Your task to perform on an android device: Add "usb-c" to the cart on amazon.com Image 0: 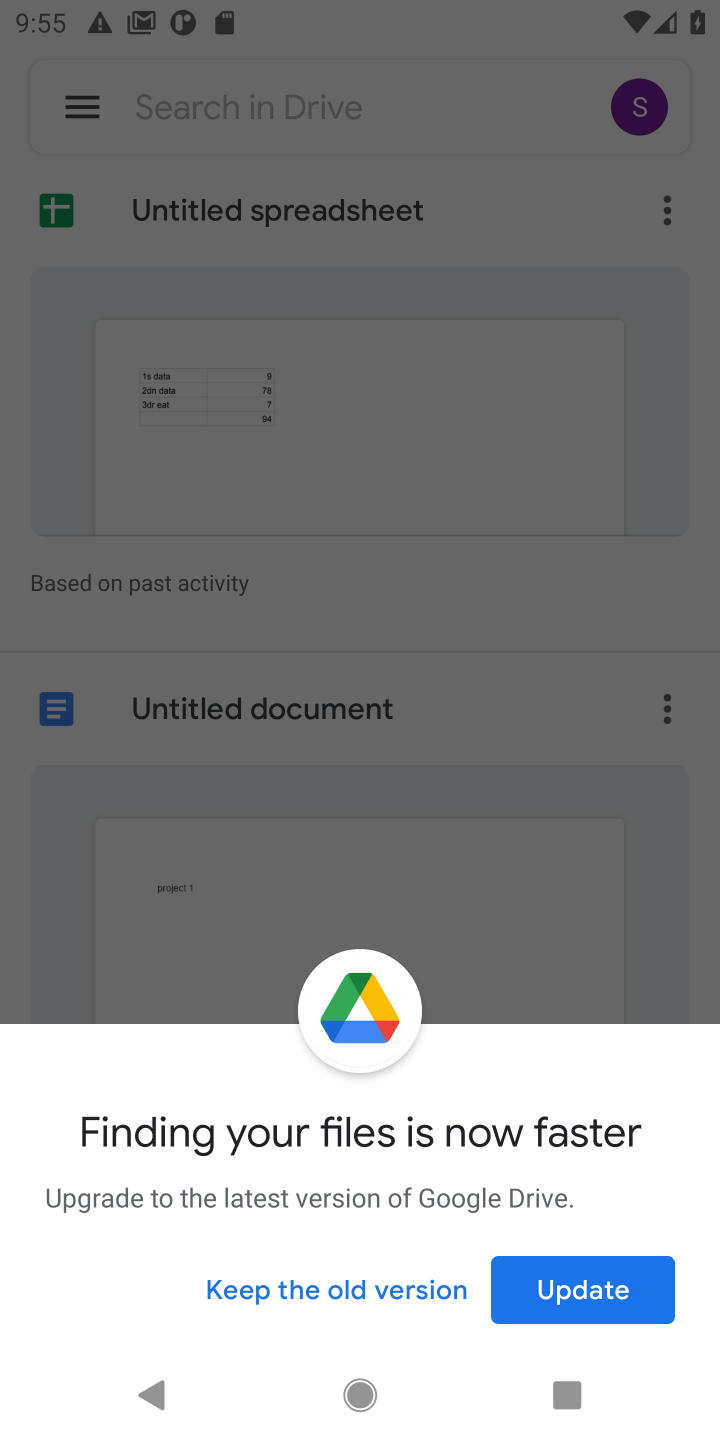
Step 0: press home button
Your task to perform on an android device: Add "usb-c" to the cart on amazon.com Image 1: 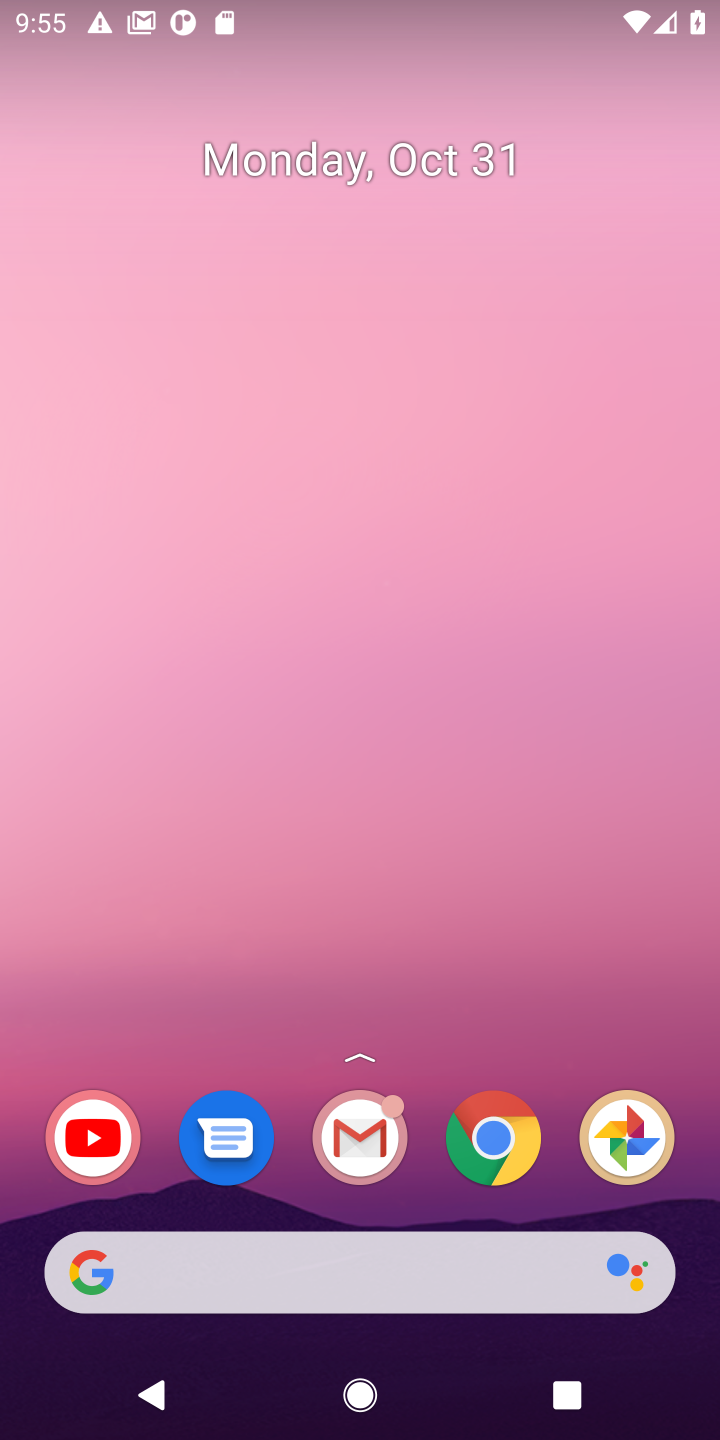
Step 1: drag from (450, 1330) to (406, 67)
Your task to perform on an android device: Add "usb-c" to the cart on amazon.com Image 2: 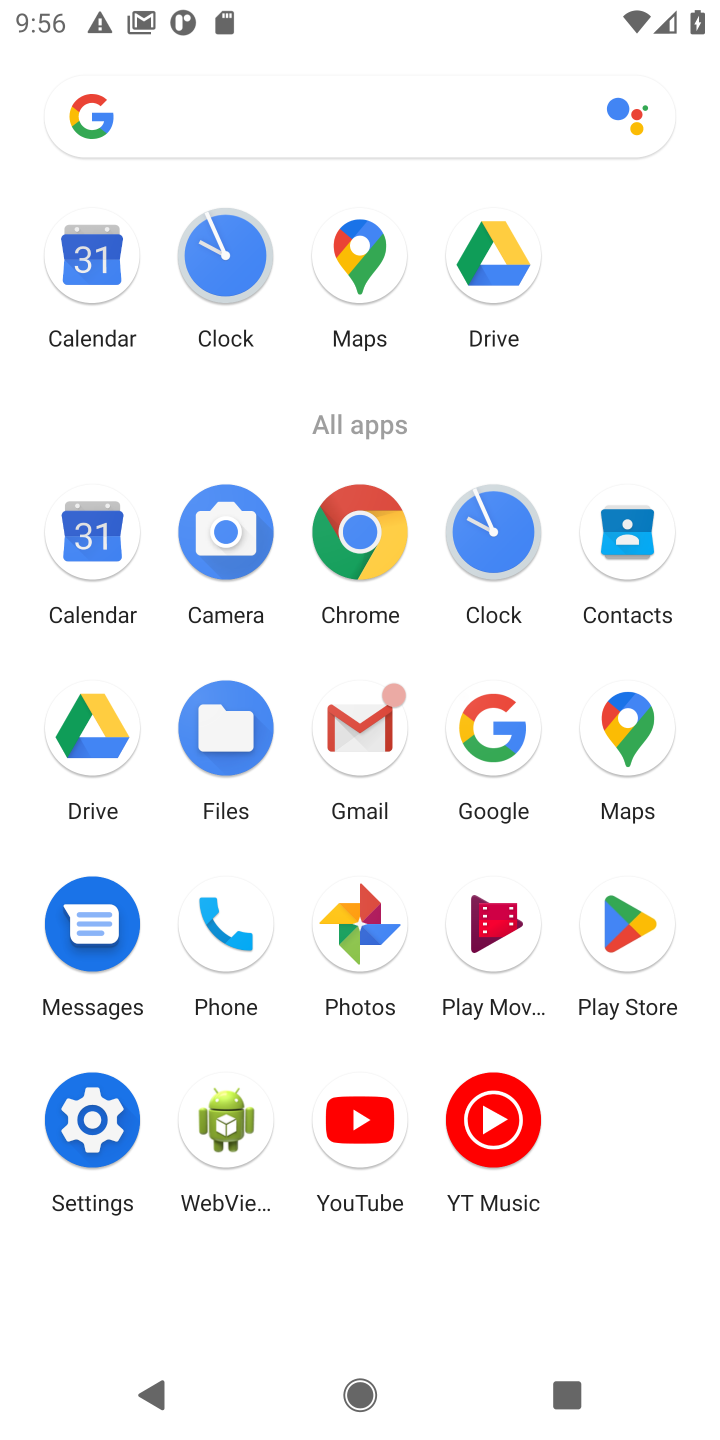
Step 2: click (358, 545)
Your task to perform on an android device: Add "usb-c" to the cart on amazon.com Image 3: 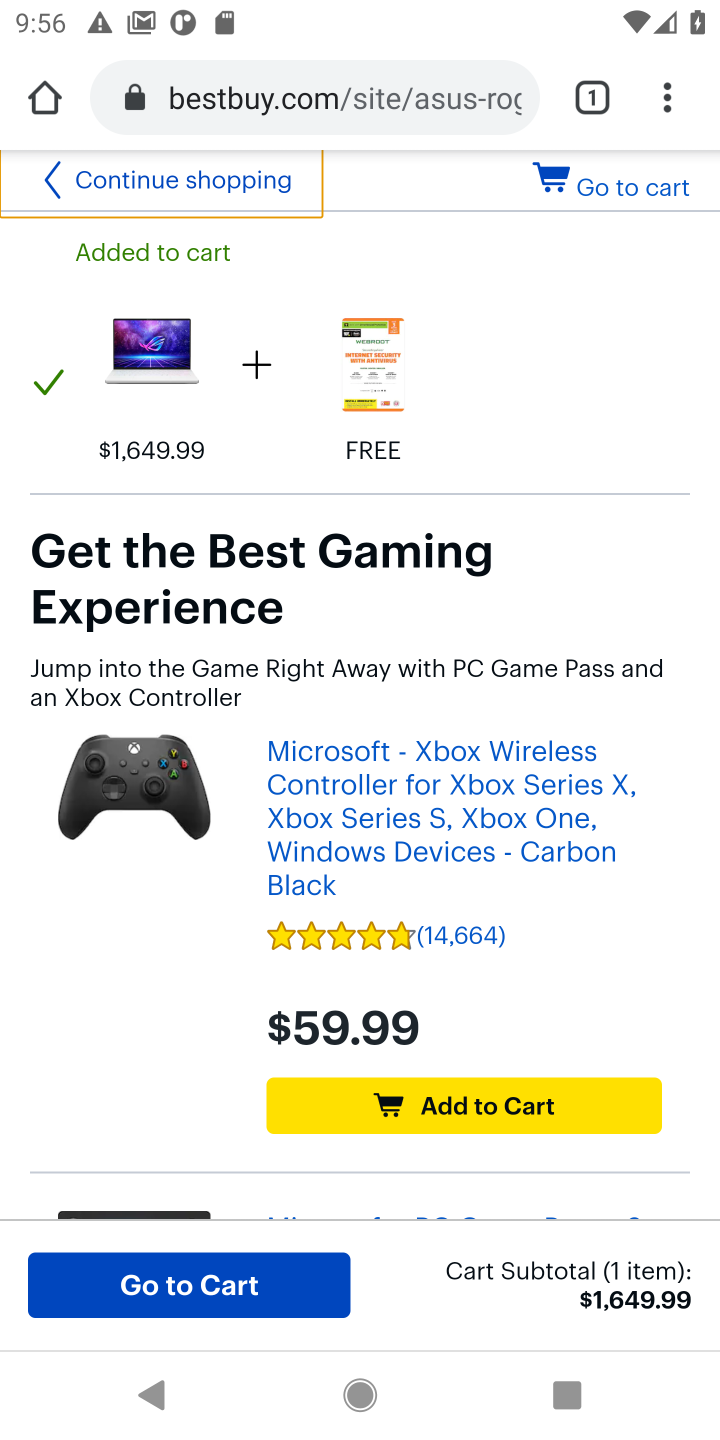
Step 3: click (288, 90)
Your task to perform on an android device: Add "usb-c" to the cart on amazon.com Image 4: 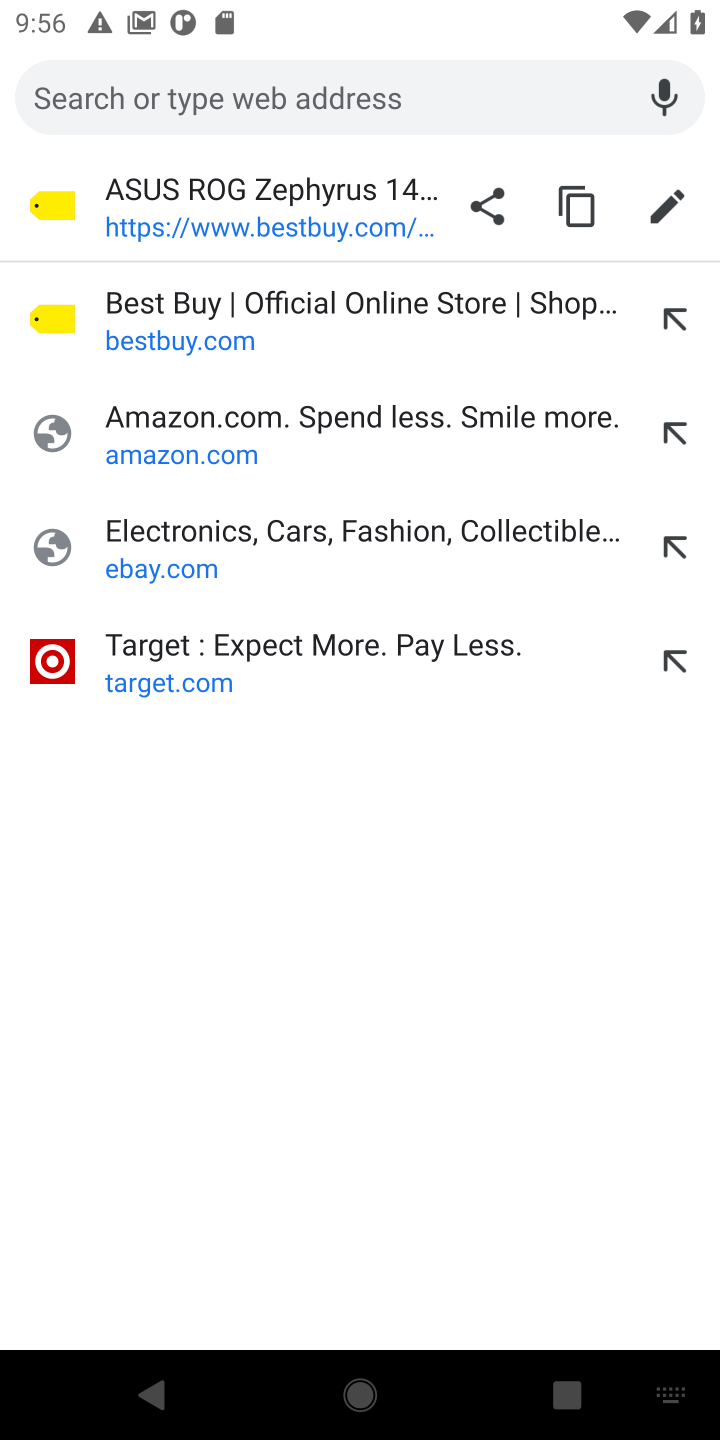
Step 4: type "amazon.com"
Your task to perform on an android device: Add "usb-c" to the cart on amazon.com Image 5: 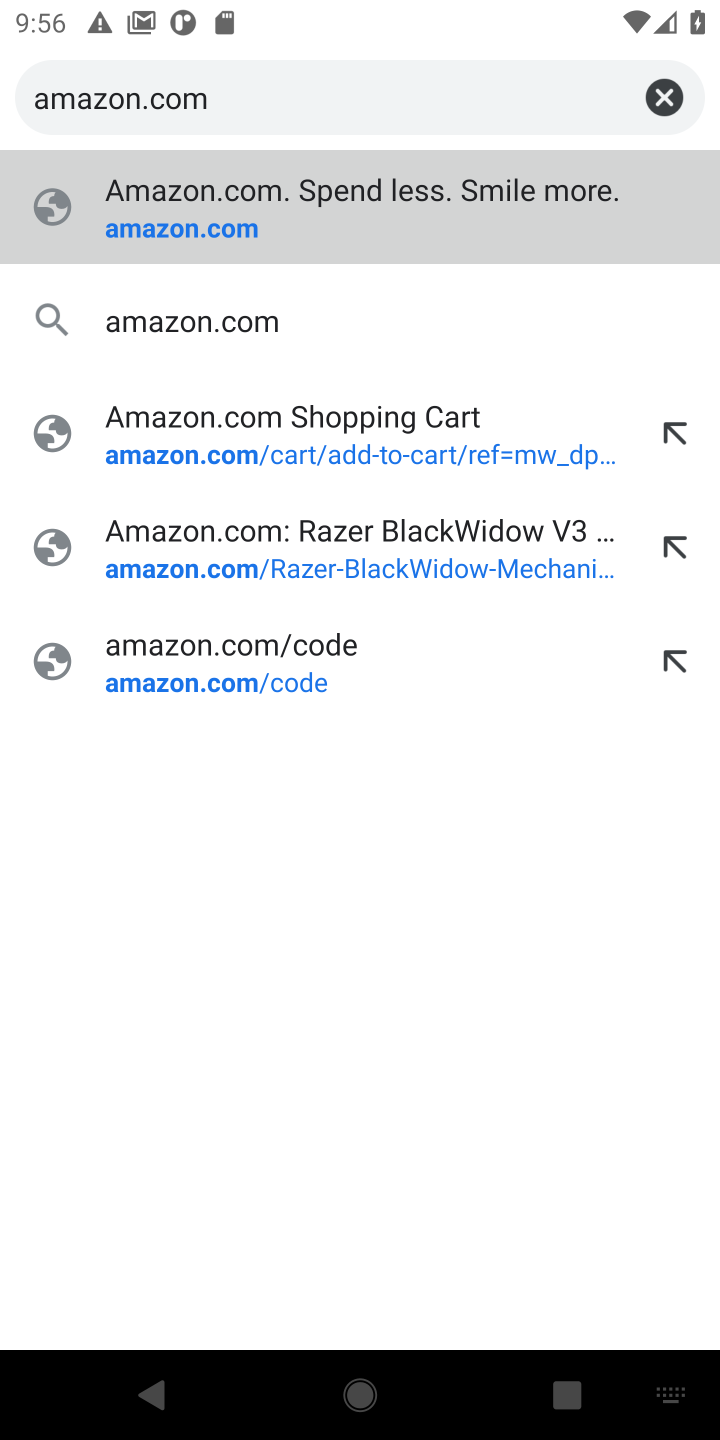
Step 5: click (189, 221)
Your task to perform on an android device: Add "usb-c" to the cart on amazon.com Image 6: 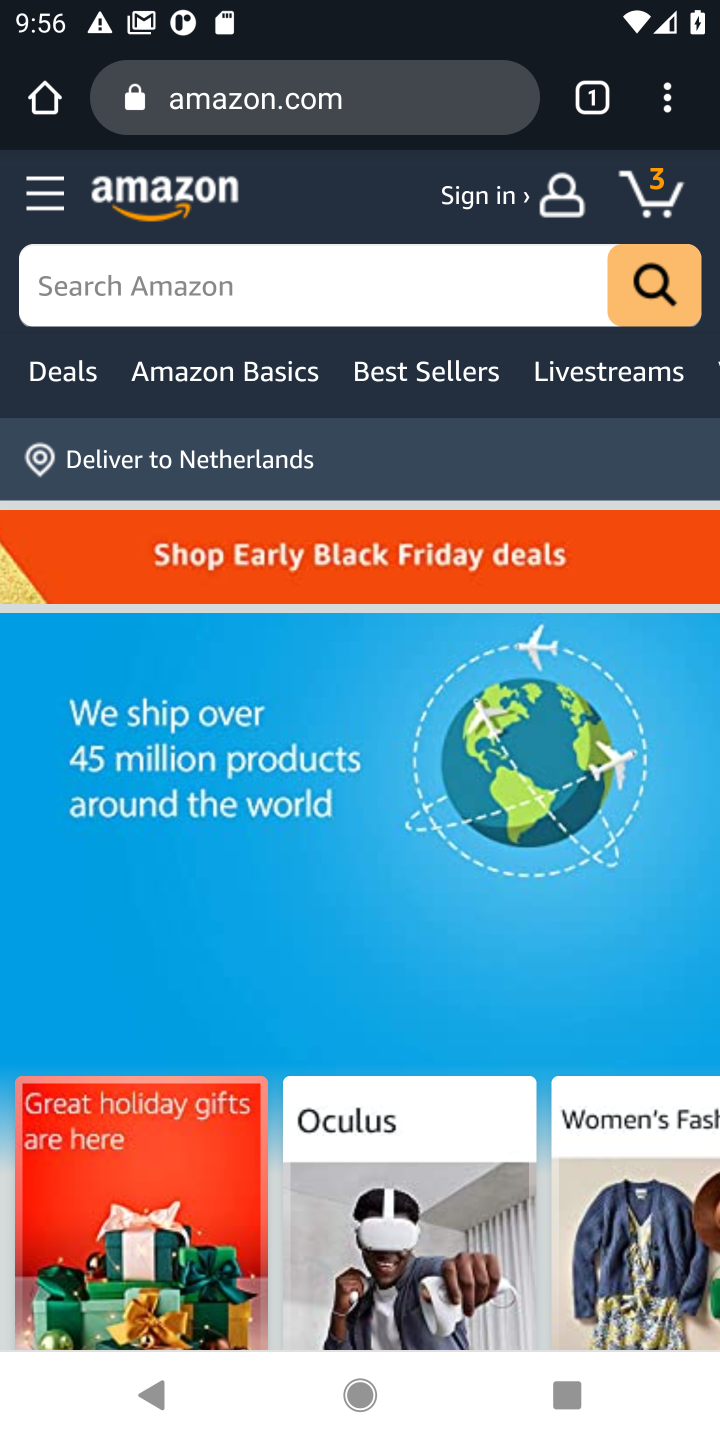
Step 6: click (175, 297)
Your task to perform on an android device: Add "usb-c" to the cart on amazon.com Image 7: 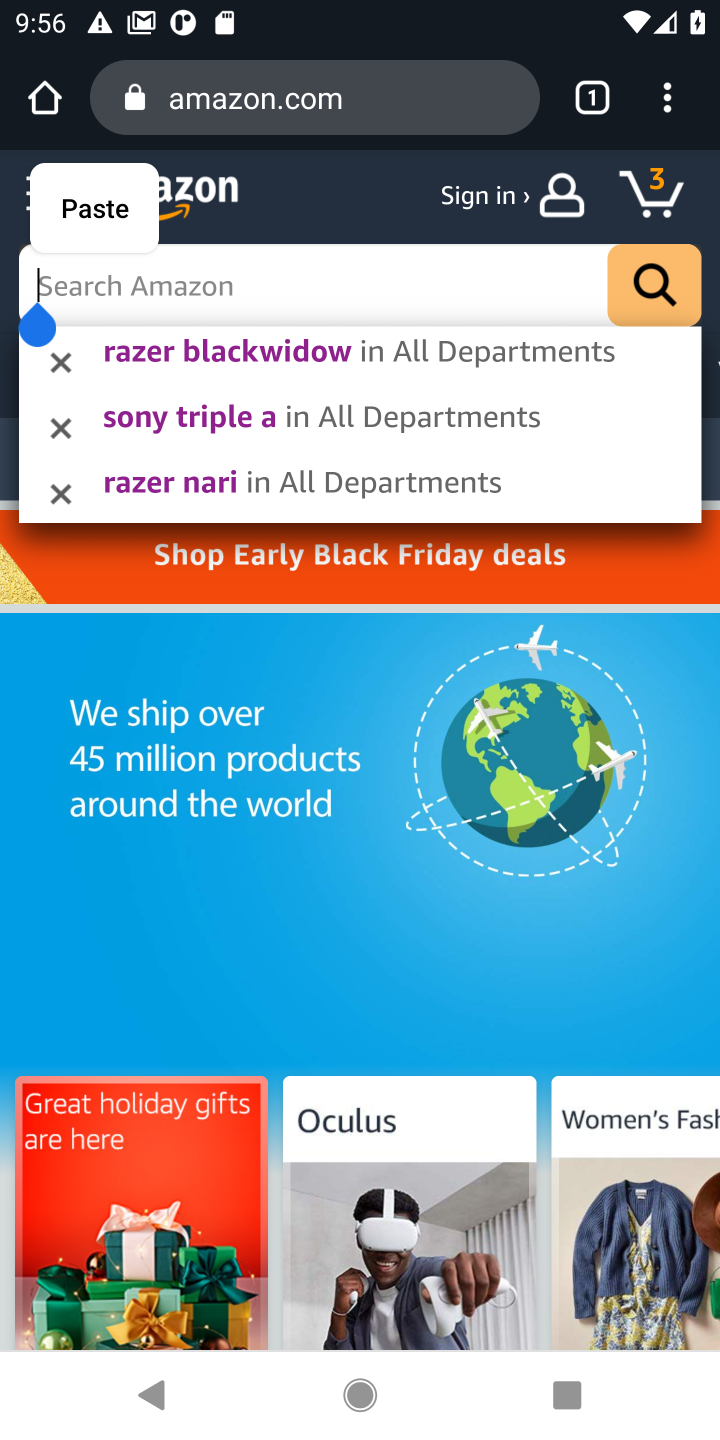
Step 7: type "usb-c"
Your task to perform on an android device: Add "usb-c" to the cart on amazon.com Image 8: 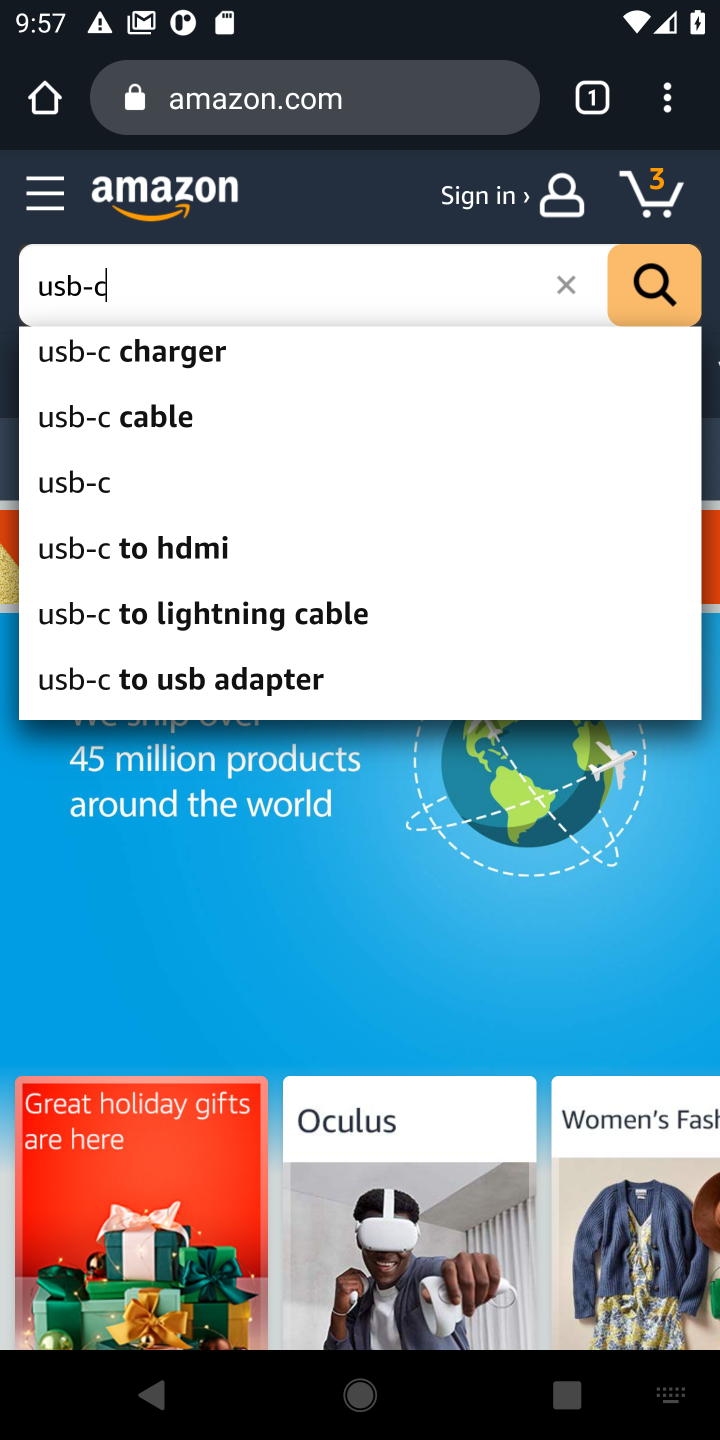
Step 8: click (621, 293)
Your task to perform on an android device: Add "usb-c" to the cart on amazon.com Image 9: 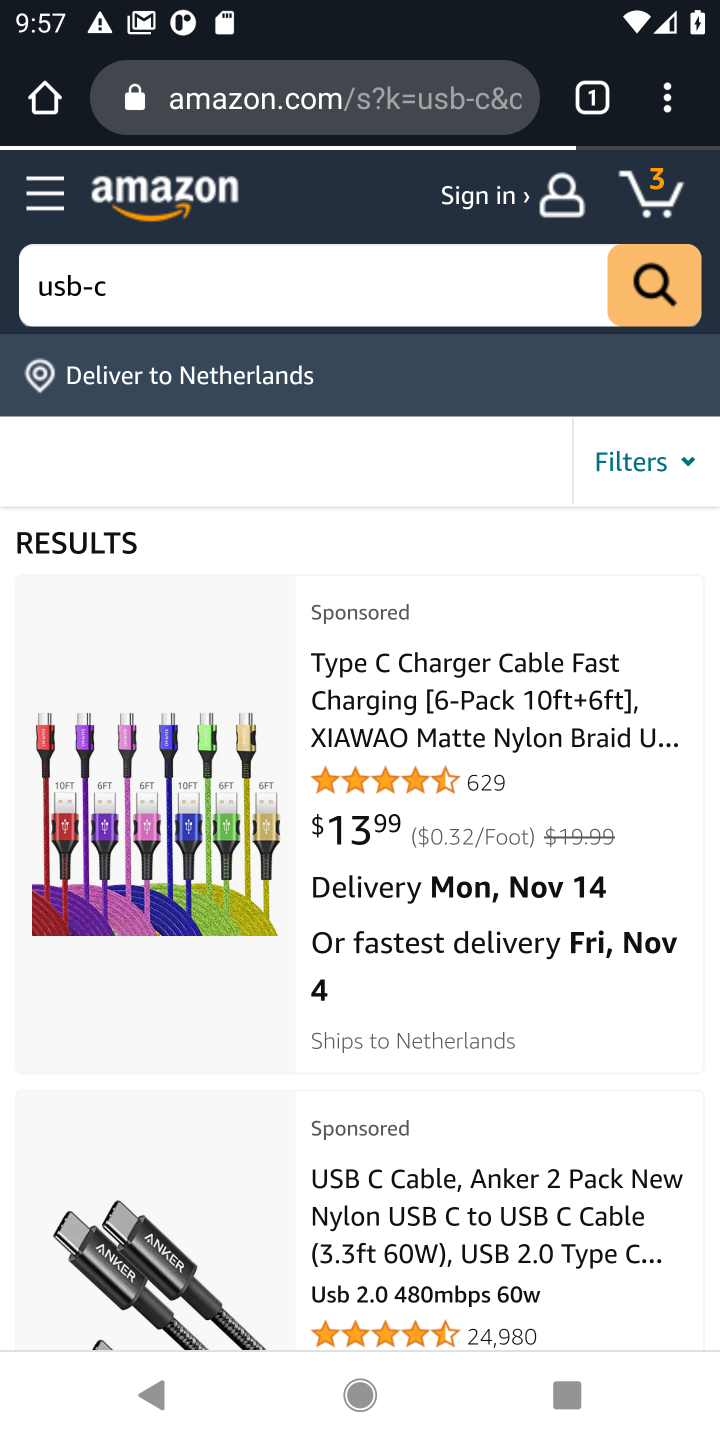
Step 9: click (189, 789)
Your task to perform on an android device: Add "usb-c" to the cart on amazon.com Image 10: 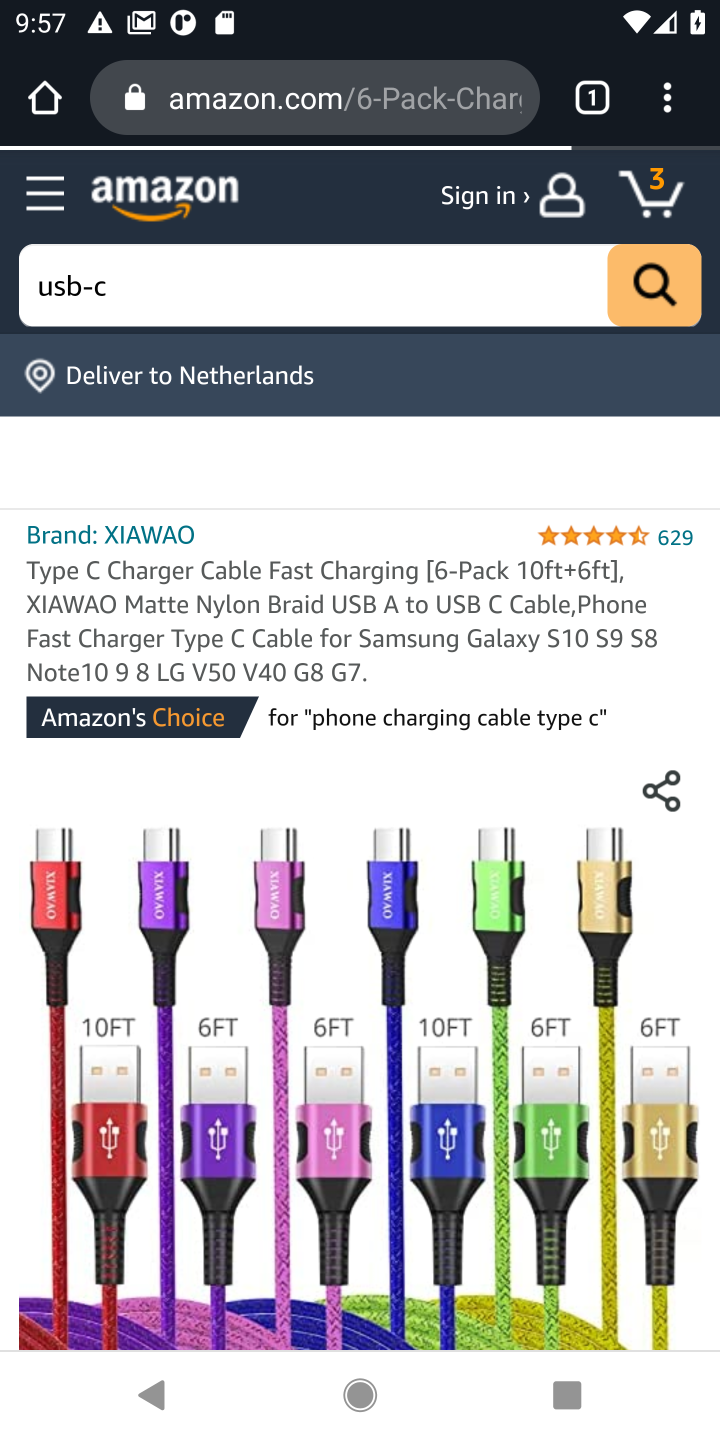
Step 10: drag from (350, 958) to (385, 469)
Your task to perform on an android device: Add "usb-c" to the cart on amazon.com Image 11: 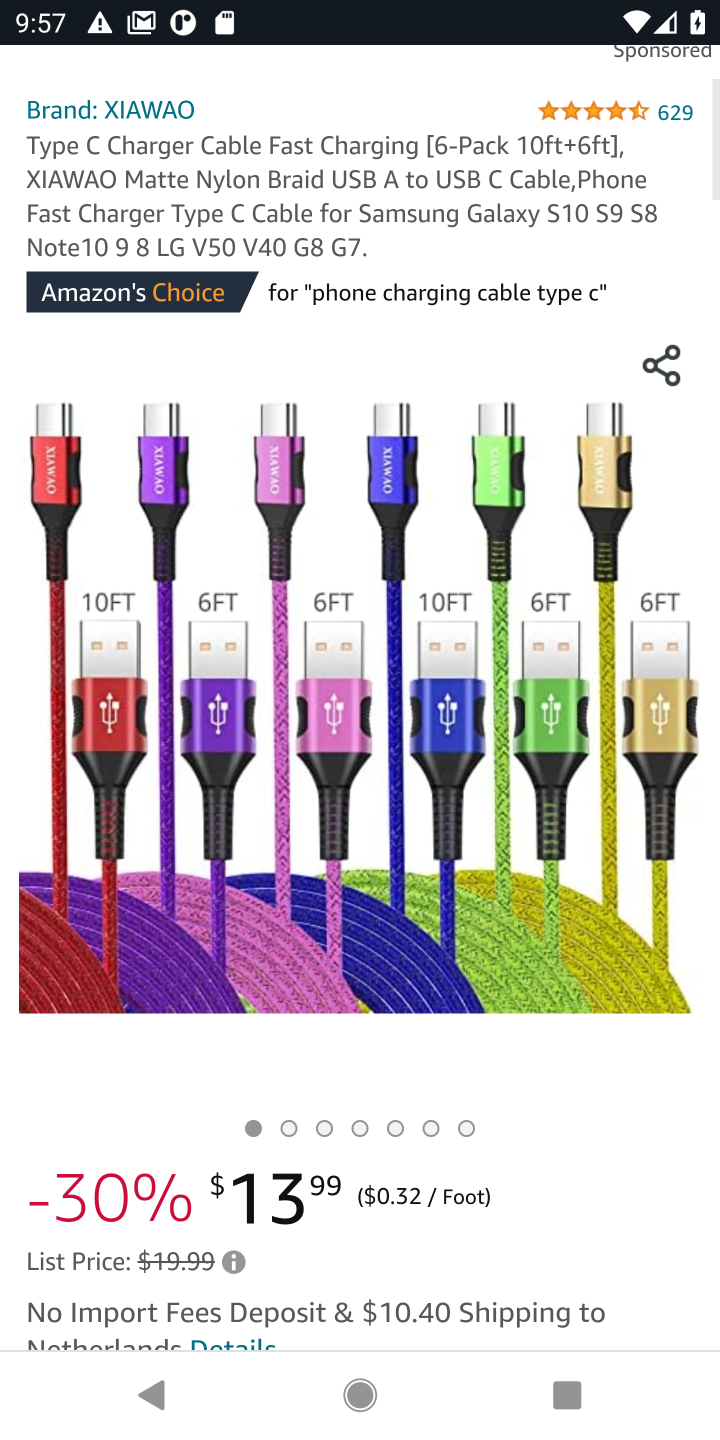
Step 11: drag from (426, 1096) to (489, 403)
Your task to perform on an android device: Add "usb-c" to the cart on amazon.com Image 12: 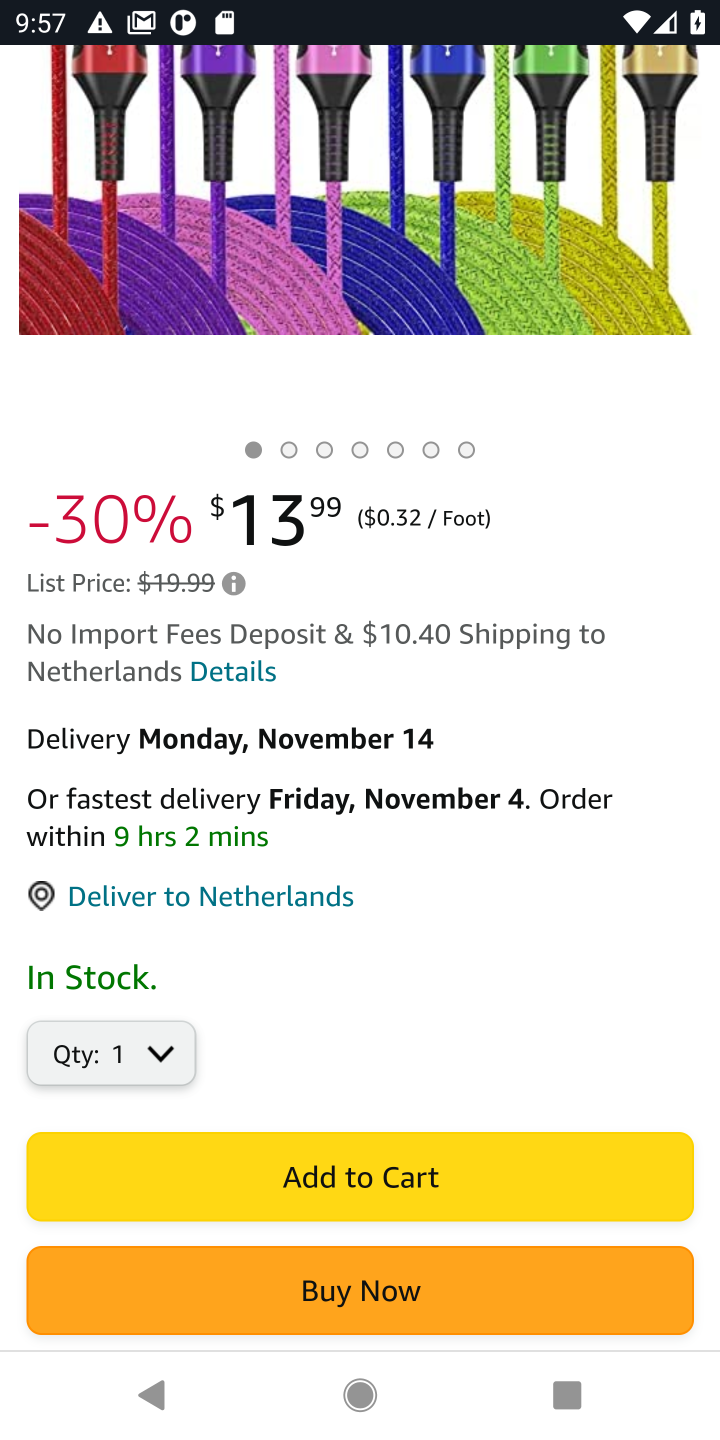
Step 12: click (376, 1168)
Your task to perform on an android device: Add "usb-c" to the cart on amazon.com Image 13: 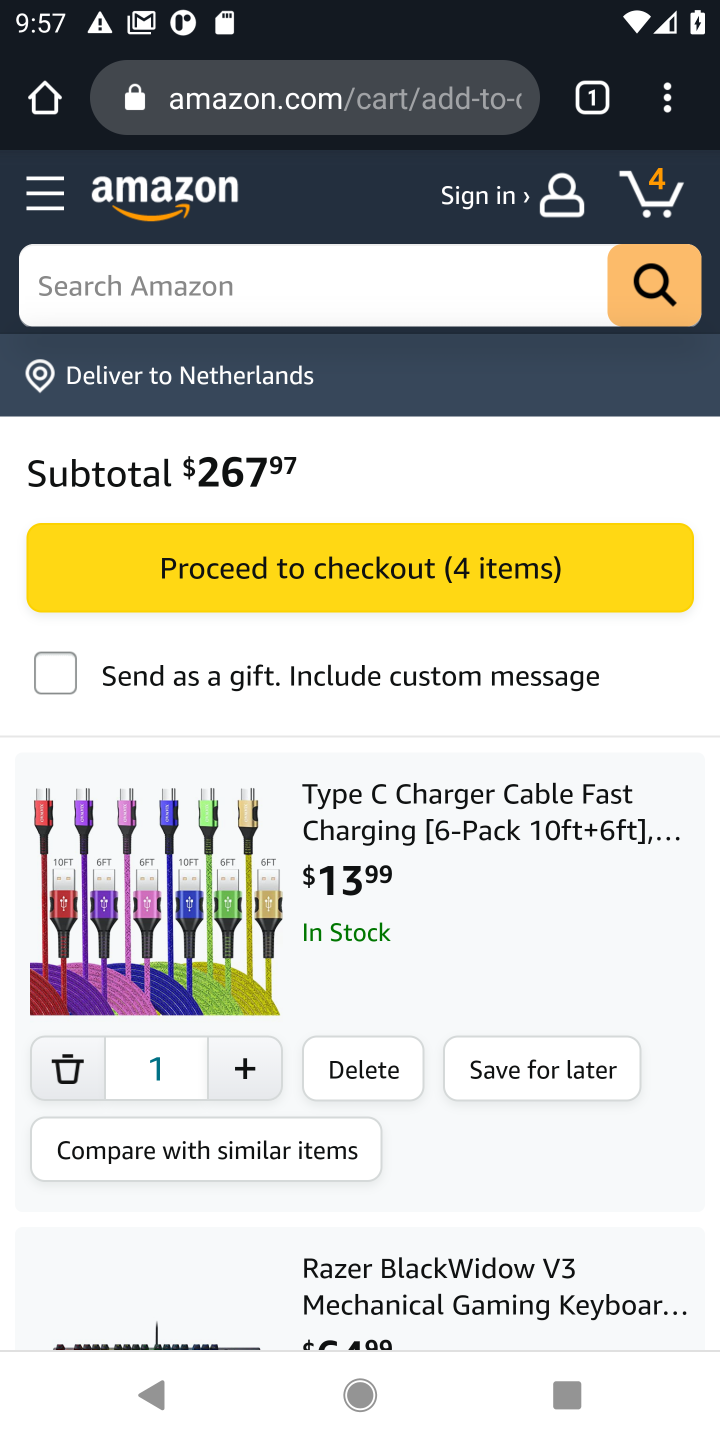
Step 13: task complete